Your task to perform on an android device: create a new album in the google photos Image 0: 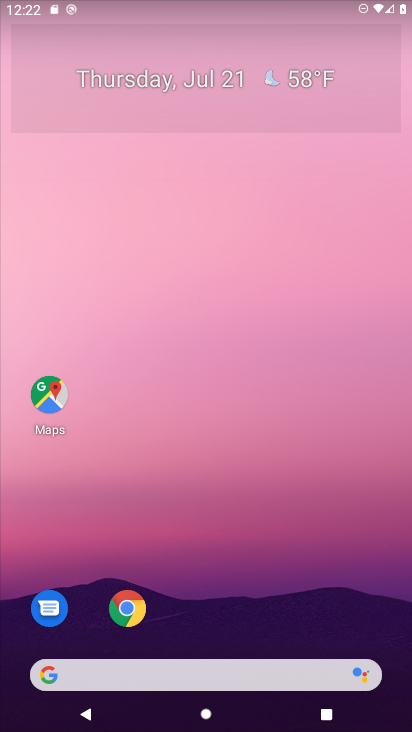
Step 0: drag from (291, 641) to (220, 141)
Your task to perform on an android device: create a new album in the google photos Image 1: 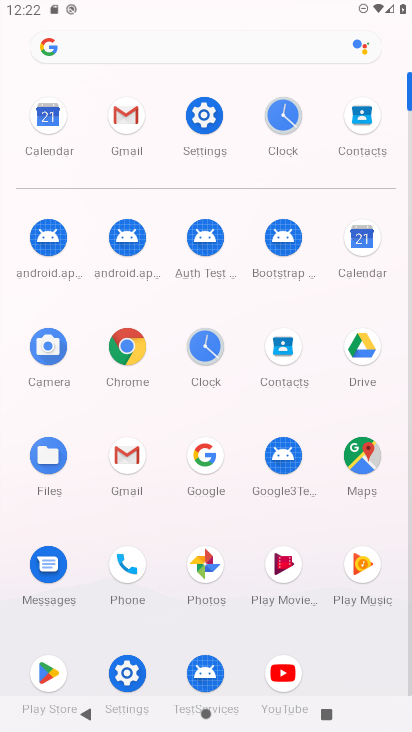
Step 1: click (197, 581)
Your task to perform on an android device: create a new album in the google photos Image 2: 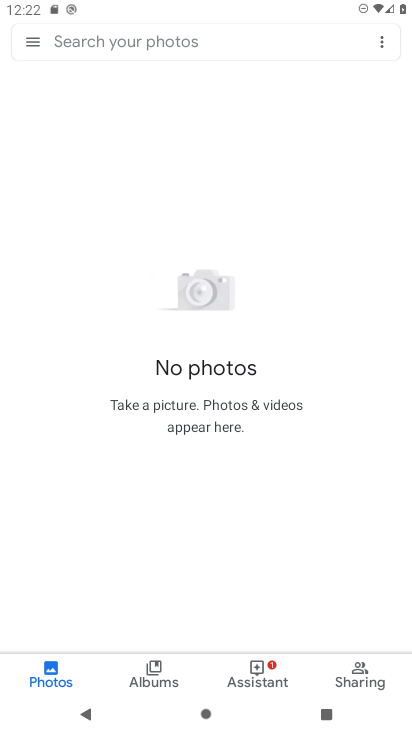
Step 2: click (146, 671)
Your task to perform on an android device: create a new album in the google photos Image 3: 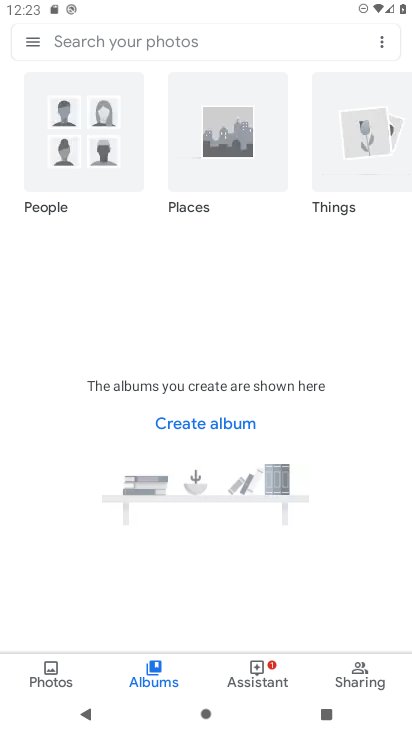
Step 3: click (182, 422)
Your task to perform on an android device: create a new album in the google photos Image 4: 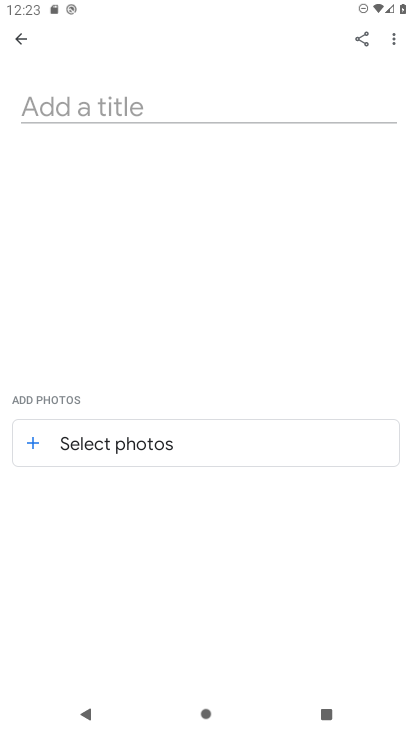
Step 4: click (162, 100)
Your task to perform on an android device: create a new album in the google photos Image 5: 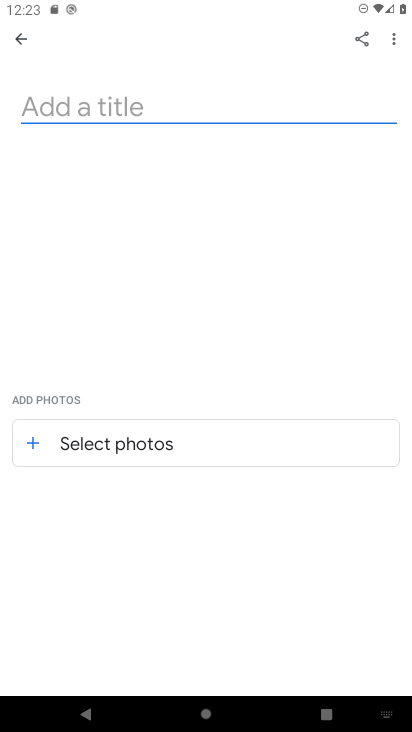
Step 5: type "gghhghg"
Your task to perform on an android device: create a new album in the google photos Image 6: 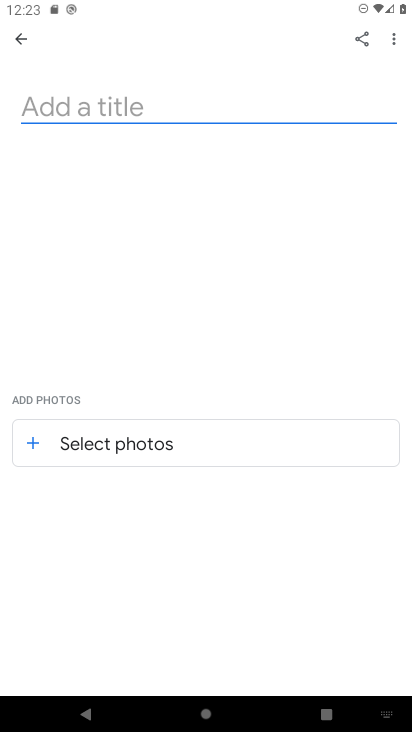
Step 6: click (160, 96)
Your task to perform on an android device: create a new album in the google photos Image 7: 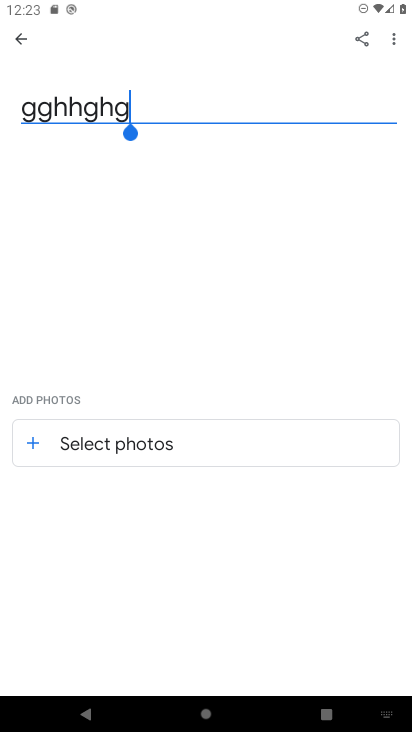
Step 7: click (192, 453)
Your task to perform on an android device: create a new album in the google photos Image 8: 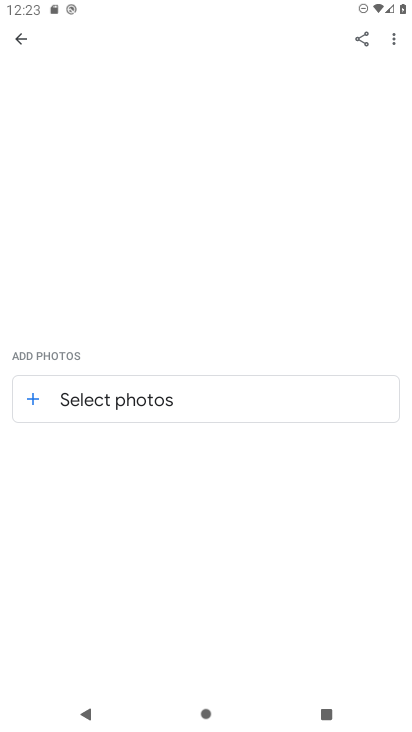
Step 8: click (38, 445)
Your task to perform on an android device: create a new album in the google photos Image 9: 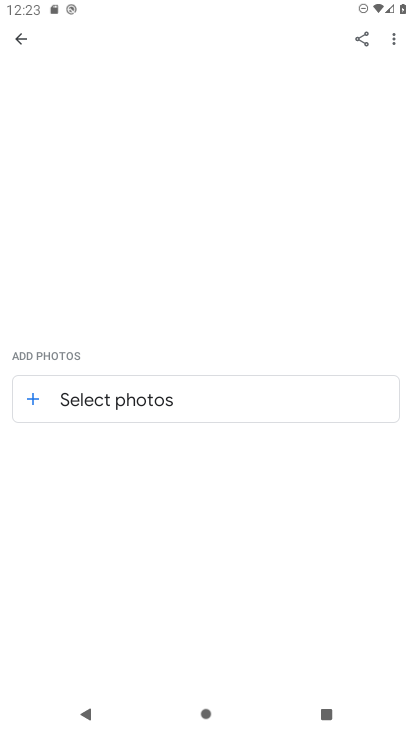
Step 9: click (34, 398)
Your task to perform on an android device: create a new album in the google photos Image 10: 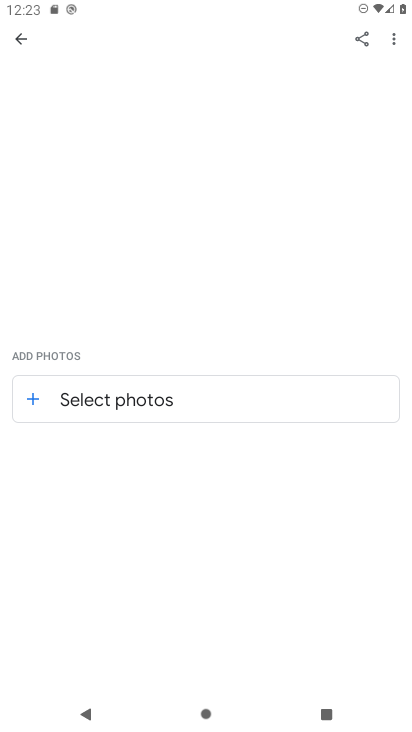
Step 10: click (135, 401)
Your task to perform on an android device: create a new album in the google photos Image 11: 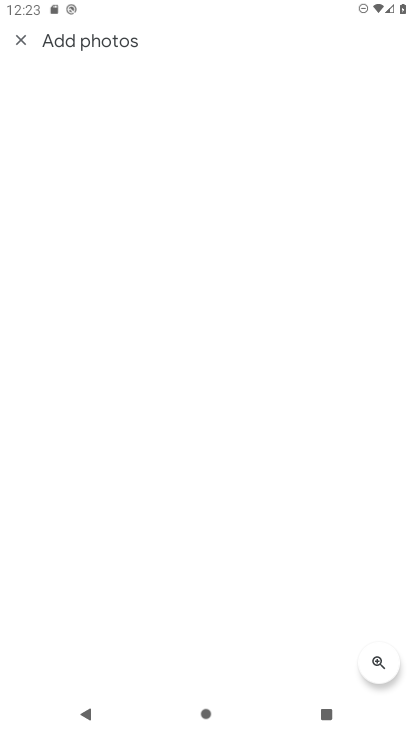
Step 11: click (23, 34)
Your task to perform on an android device: create a new album in the google photos Image 12: 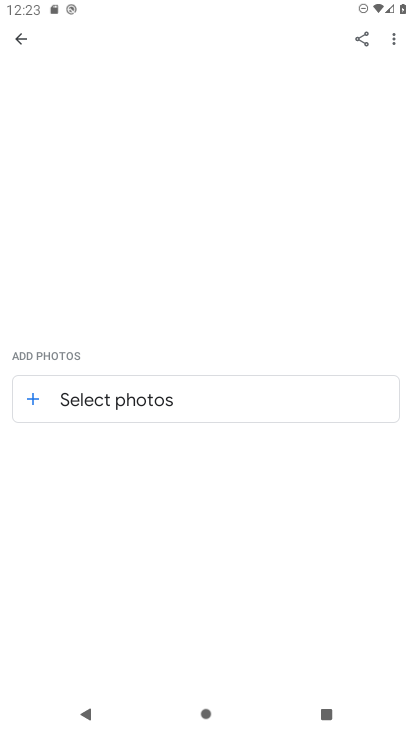
Step 12: click (114, 394)
Your task to perform on an android device: create a new album in the google photos Image 13: 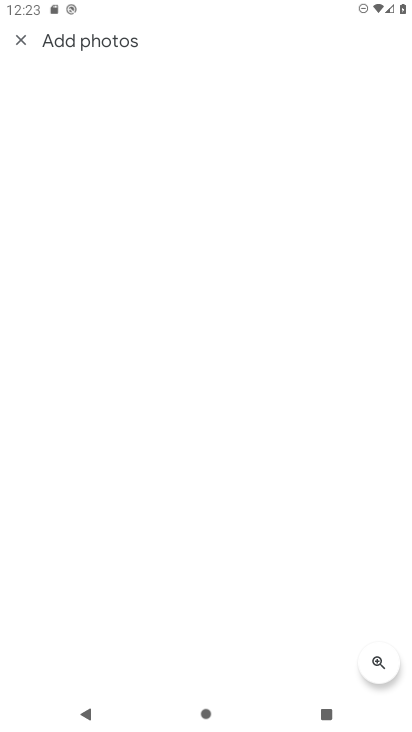
Step 13: click (22, 40)
Your task to perform on an android device: create a new album in the google photos Image 14: 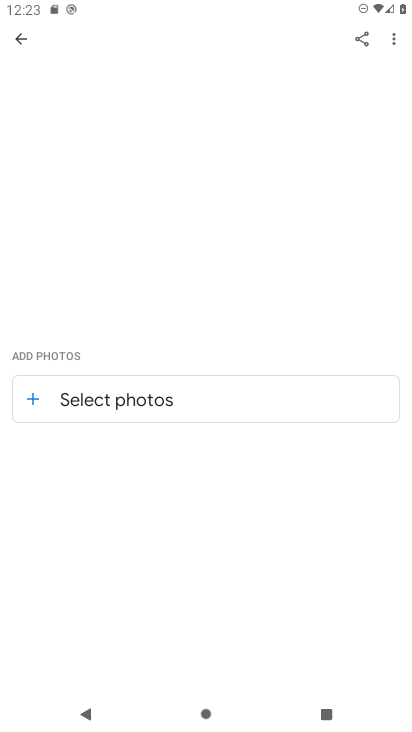
Step 14: task complete